Your task to perform on an android device: Go to Amazon Image 0: 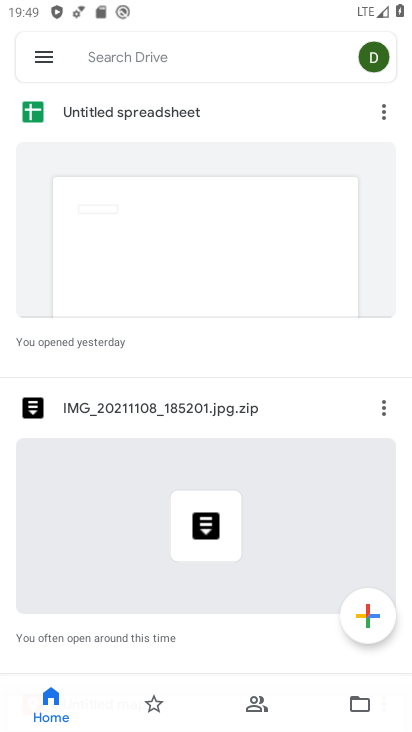
Step 0: press home button
Your task to perform on an android device: Go to Amazon Image 1: 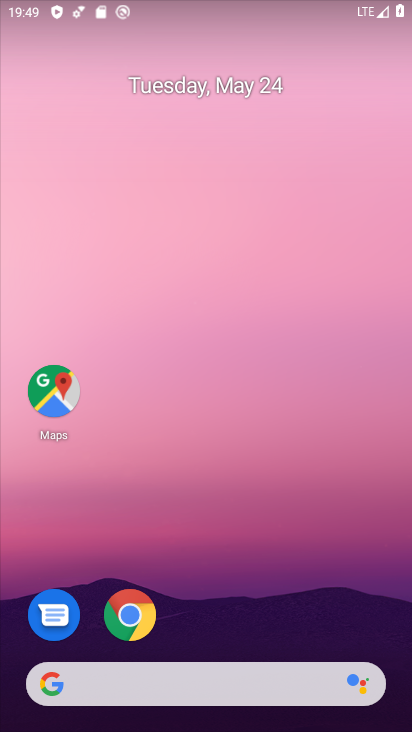
Step 1: drag from (229, 617) to (255, 296)
Your task to perform on an android device: Go to Amazon Image 2: 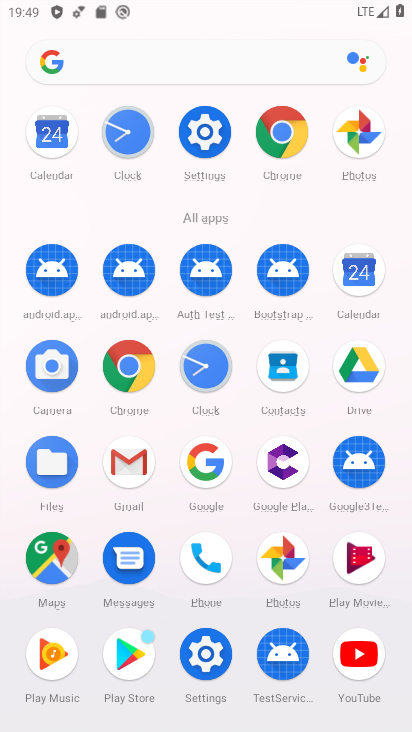
Step 2: click (283, 124)
Your task to perform on an android device: Go to Amazon Image 3: 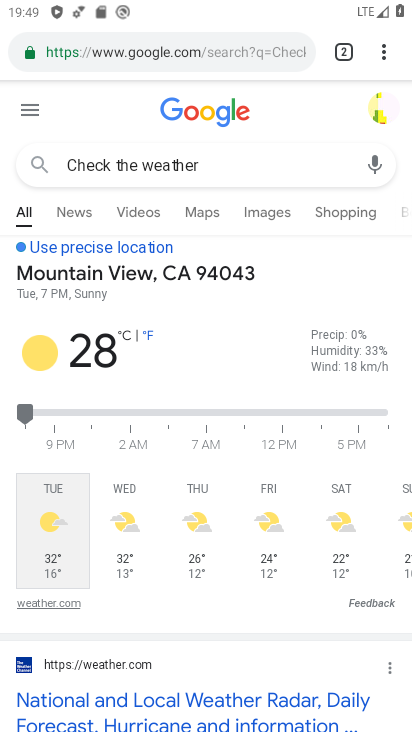
Step 3: click (382, 59)
Your task to perform on an android device: Go to Amazon Image 4: 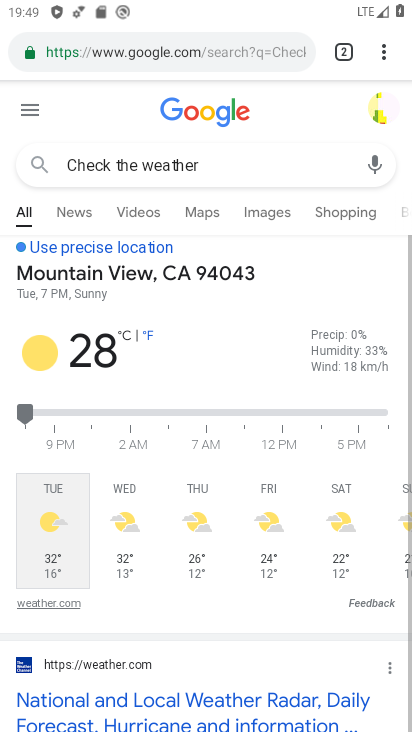
Step 4: click (375, 44)
Your task to perform on an android device: Go to Amazon Image 5: 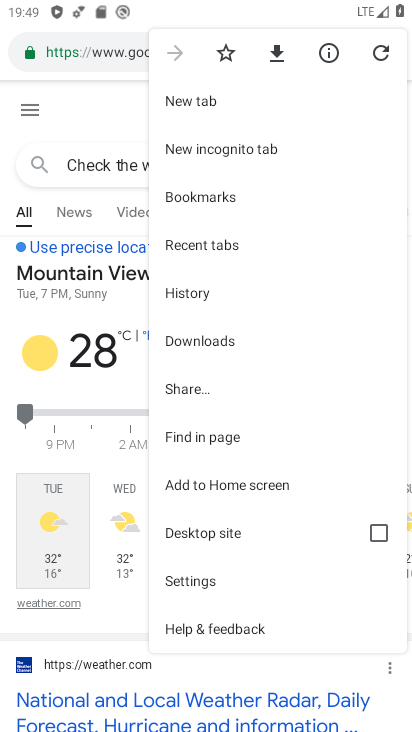
Step 5: click (228, 95)
Your task to perform on an android device: Go to Amazon Image 6: 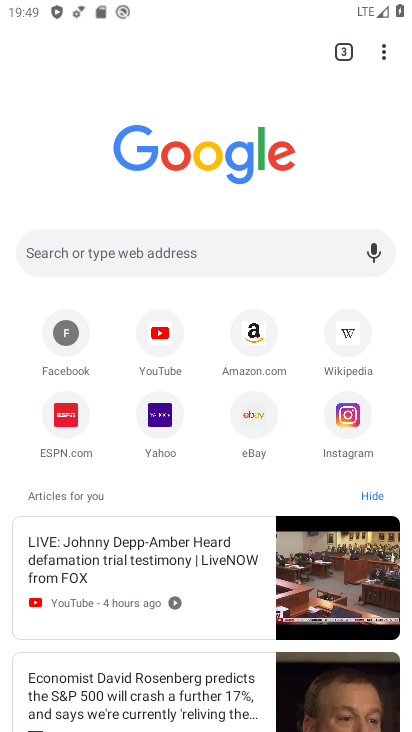
Step 6: click (253, 338)
Your task to perform on an android device: Go to Amazon Image 7: 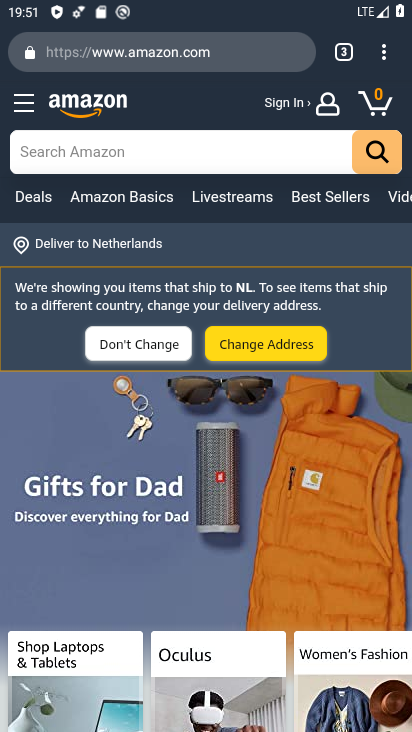
Step 7: task complete